Your task to perform on an android device: What's the weather? Image 0: 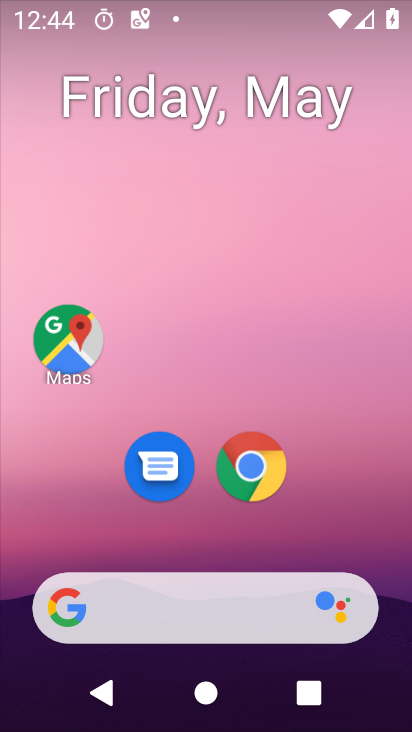
Step 0: drag from (401, 614) to (321, 292)
Your task to perform on an android device: What's the weather? Image 1: 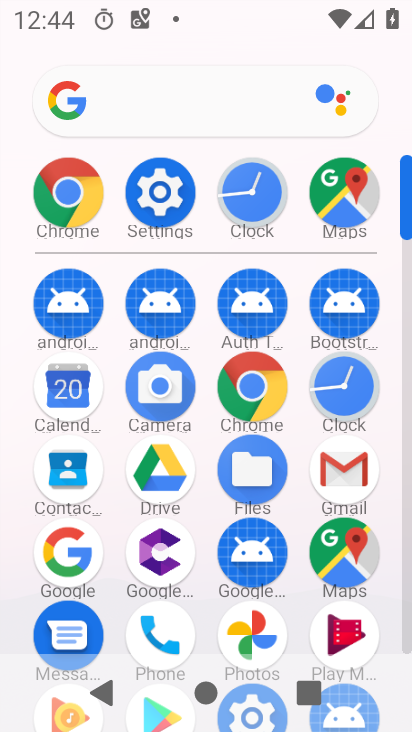
Step 1: click (81, 548)
Your task to perform on an android device: What's the weather? Image 2: 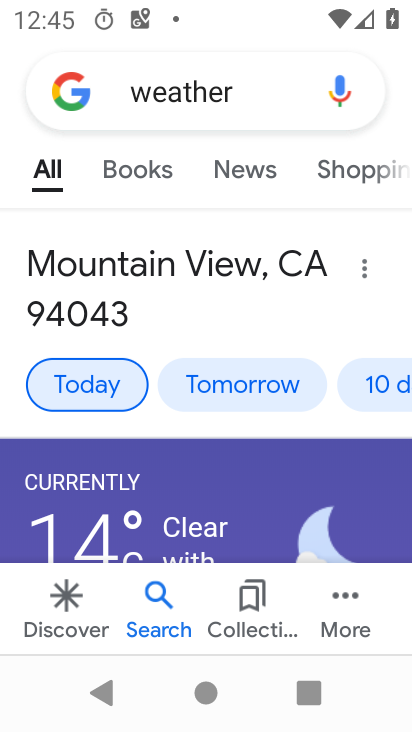
Step 2: task complete